Your task to perform on an android device: Open eBay Image 0: 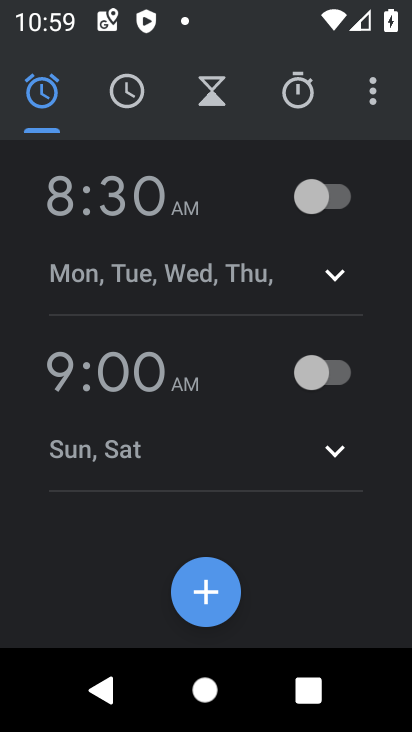
Step 0: press home button
Your task to perform on an android device: Open eBay Image 1: 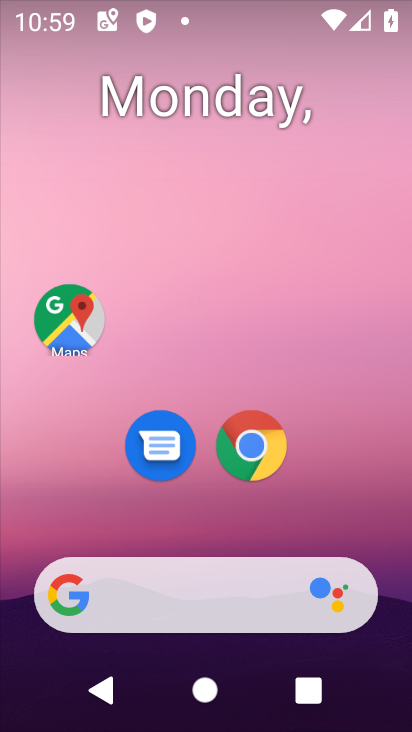
Step 1: click (259, 438)
Your task to perform on an android device: Open eBay Image 2: 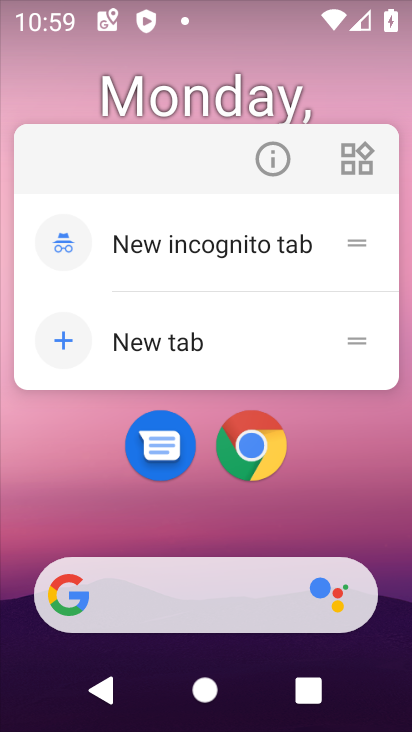
Step 2: click (247, 447)
Your task to perform on an android device: Open eBay Image 3: 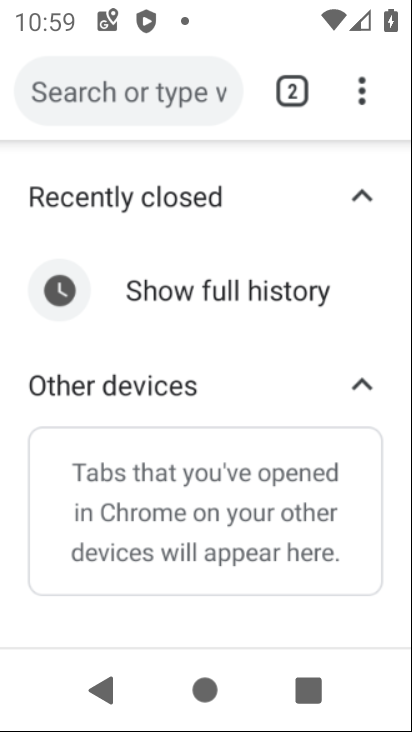
Step 3: click (285, 89)
Your task to perform on an android device: Open eBay Image 4: 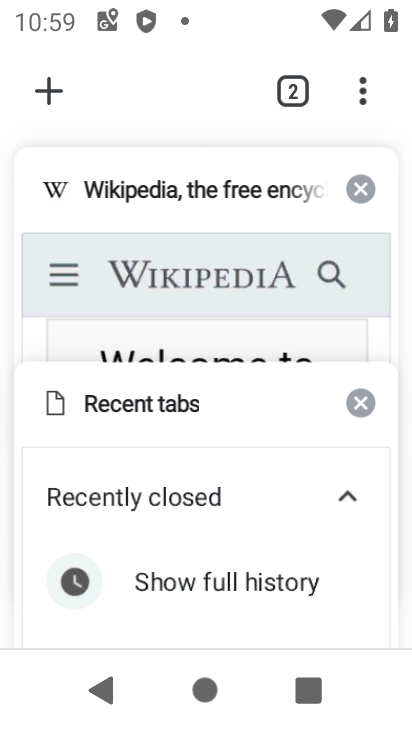
Step 4: click (47, 78)
Your task to perform on an android device: Open eBay Image 5: 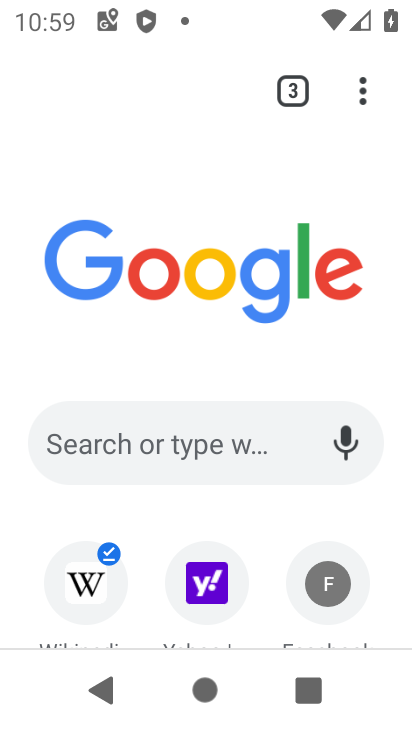
Step 5: drag from (209, 611) to (255, 141)
Your task to perform on an android device: Open eBay Image 6: 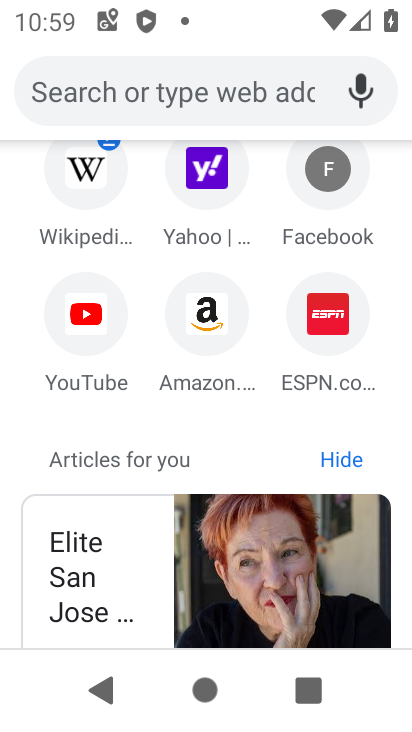
Step 6: click (164, 100)
Your task to perform on an android device: Open eBay Image 7: 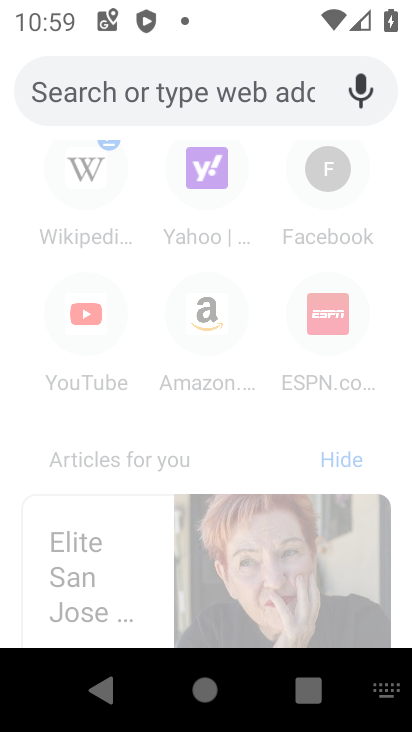
Step 7: type "ebay"
Your task to perform on an android device: Open eBay Image 8: 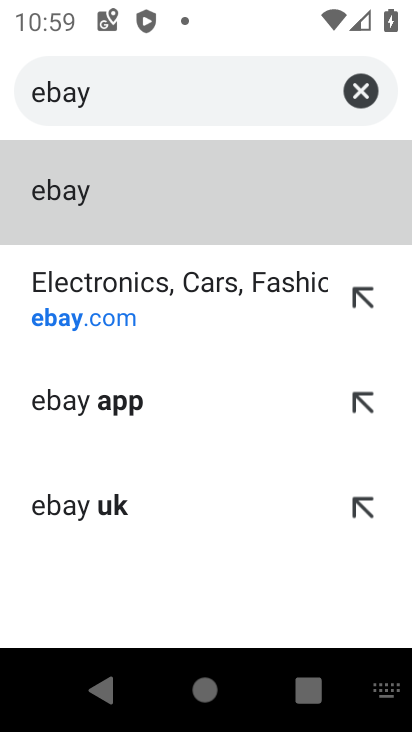
Step 8: click (121, 299)
Your task to perform on an android device: Open eBay Image 9: 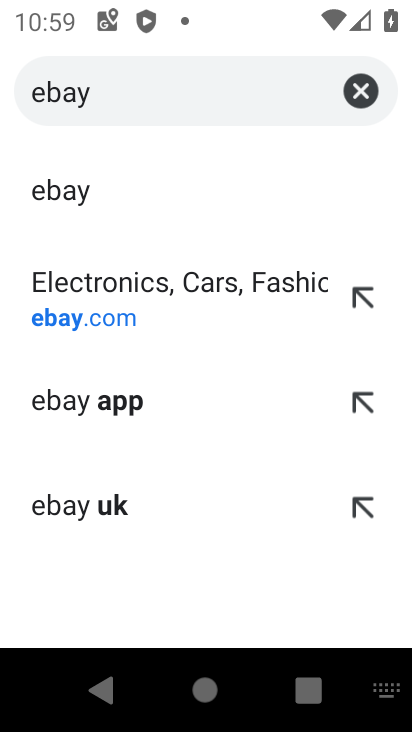
Step 9: click (120, 306)
Your task to perform on an android device: Open eBay Image 10: 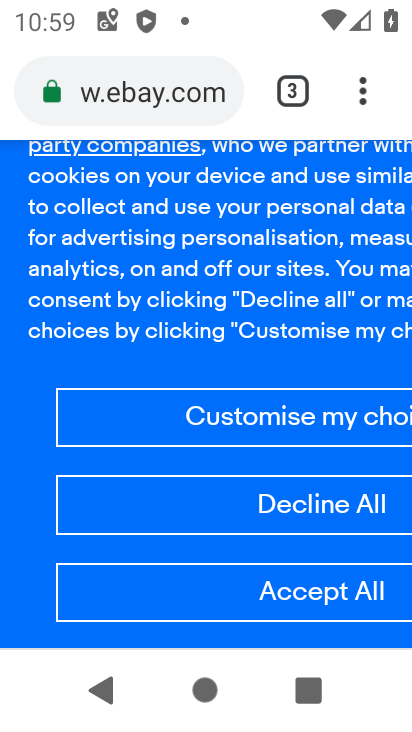
Step 10: task complete